Your task to perform on an android device: Search for vegetarian restaurants on Maps Image 0: 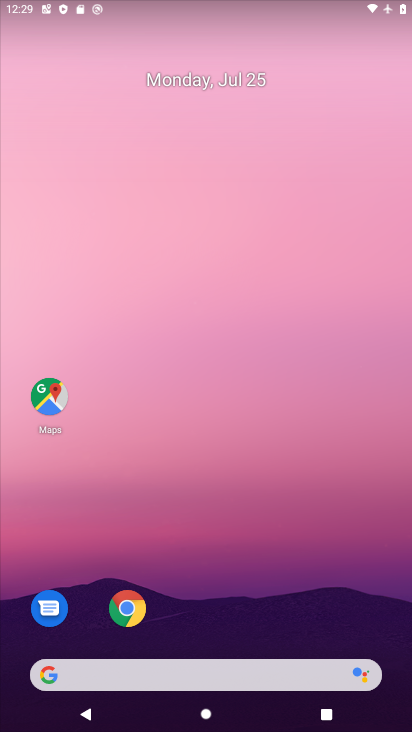
Step 0: drag from (248, 664) to (288, 76)
Your task to perform on an android device: Search for vegetarian restaurants on Maps Image 1: 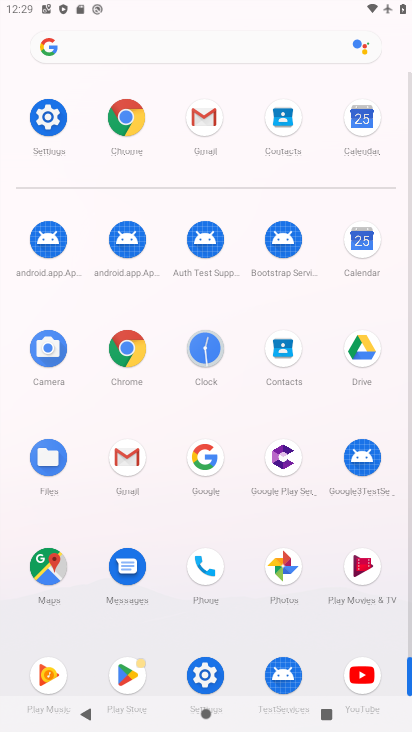
Step 1: drag from (191, 444) to (243, 290)
Your task to perform on an android device: Search for vegetarian restaurants on Maps Image 2: 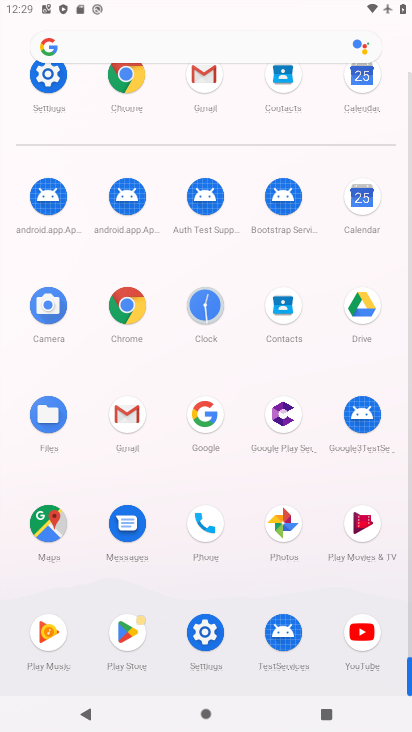
Step 2: click (45, 543)
Your task to perform on an android device: Search for vegetarian restaurants on Maps Image 3: 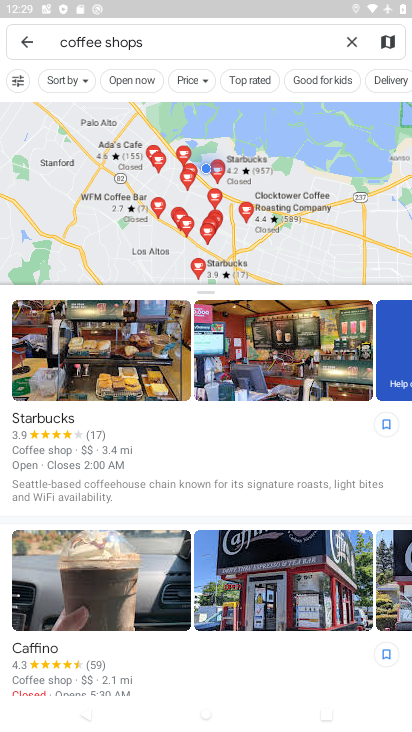
Step 3: click (346, 43)
Your task to perform on an android device: Search for vegetarian restaurants on Maps Image 4: 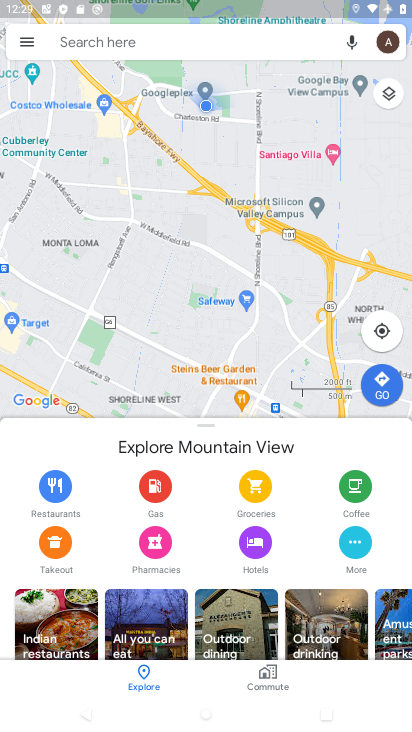
Step 4: click (240, 51)
Your task to perform on an android device: Search for vegetarian restaurants on Maps Image 5: 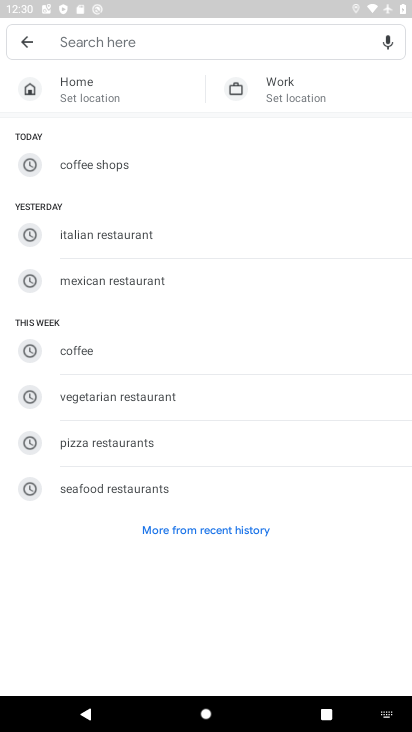
Step 5: click (123, 398)
Your task to perform on an android device: Search for vegetarian restaurants on Maps Image 6: 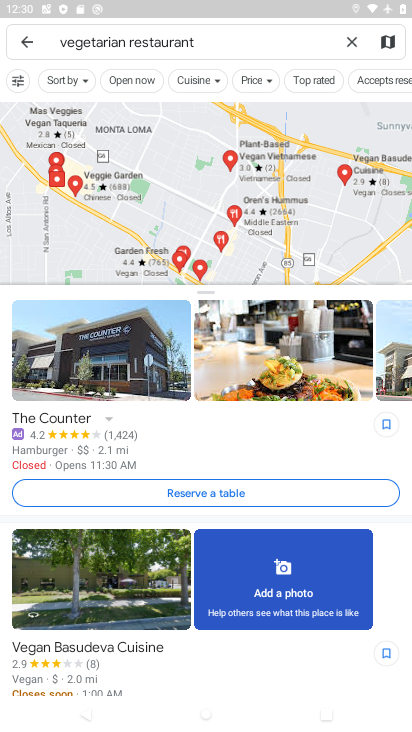
Step 6: task complete